Your task to perform on an android device: install app "Contacts" Image 0: 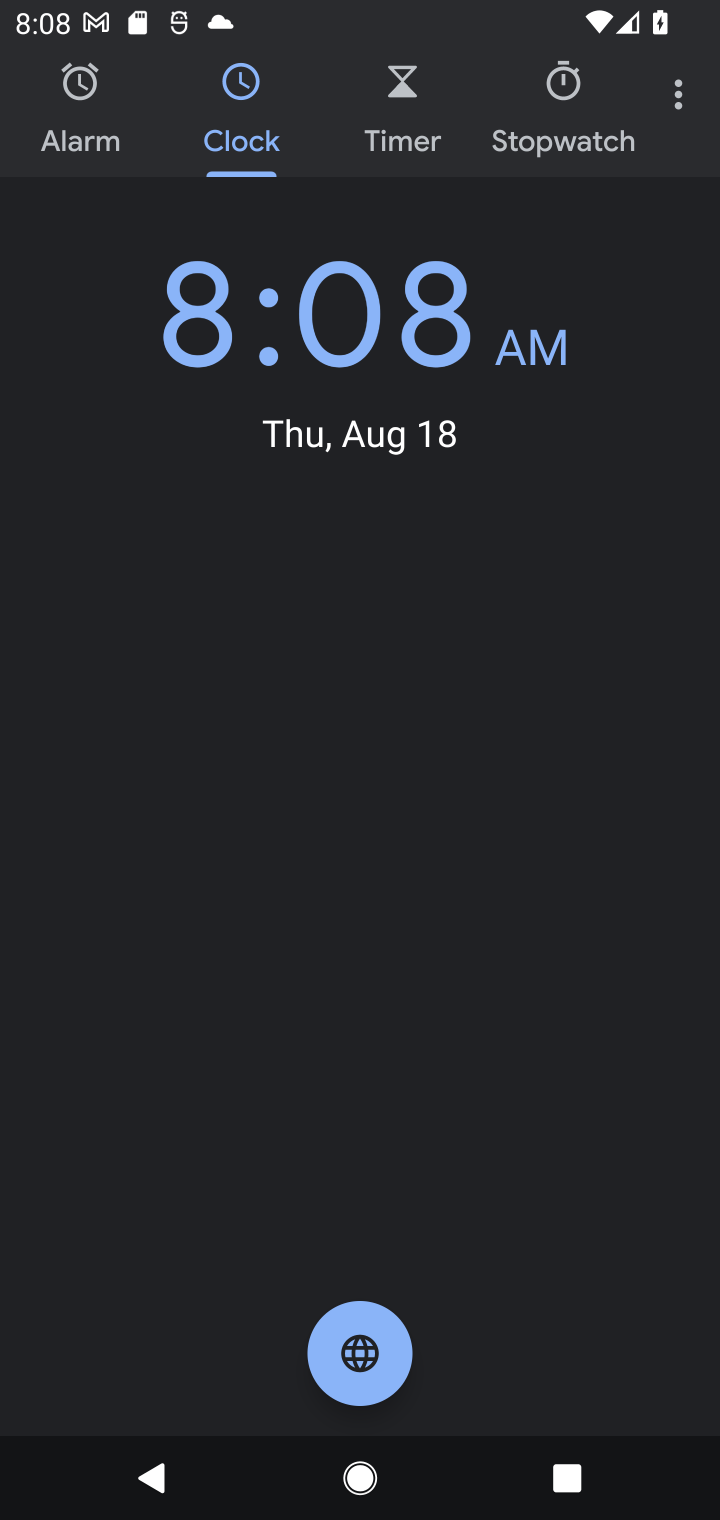
Step 0: press back button
Your task to perform on an android device: install app "Contacts" Image 1: 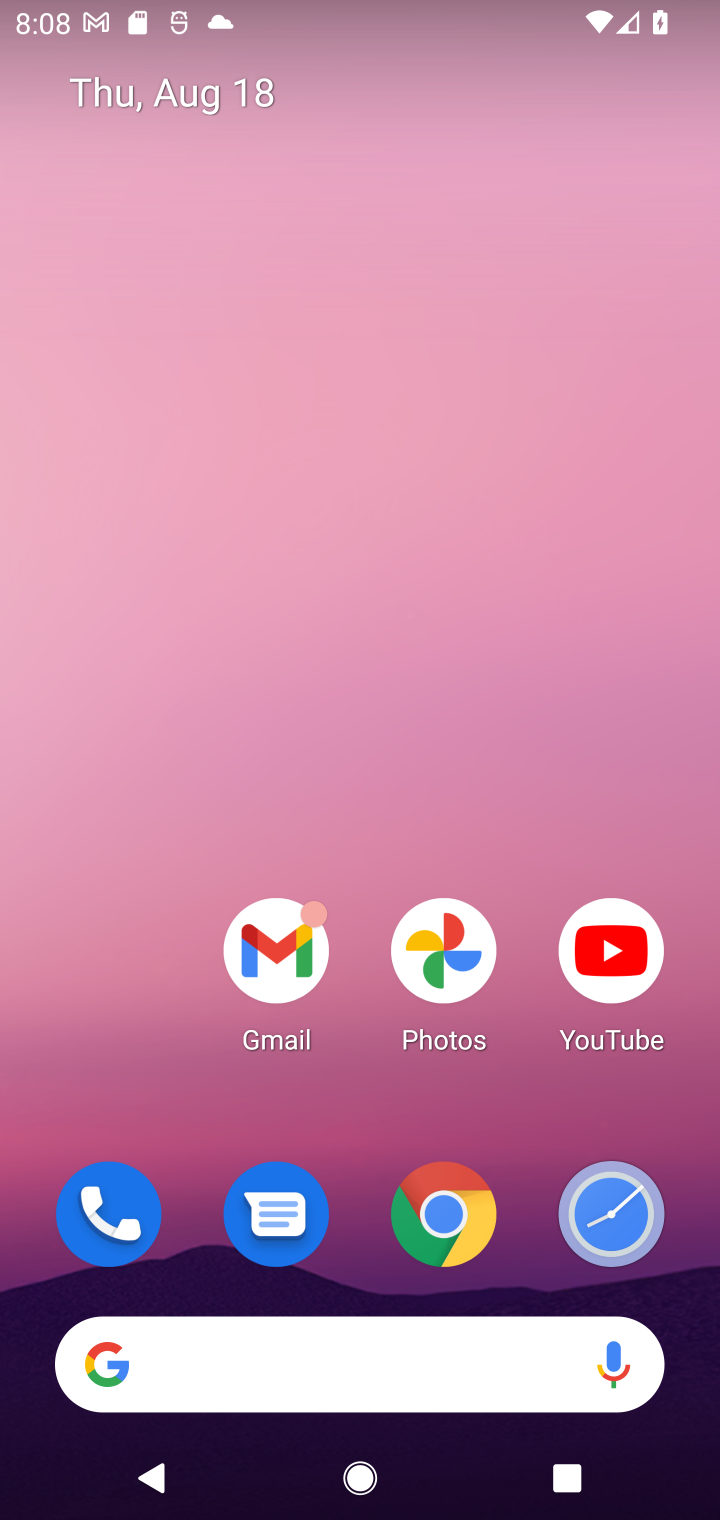
Step 1: drag from (101, 1053) to (406, 1)
Your task to perform on an android device: install app "Contacts" Image 2: 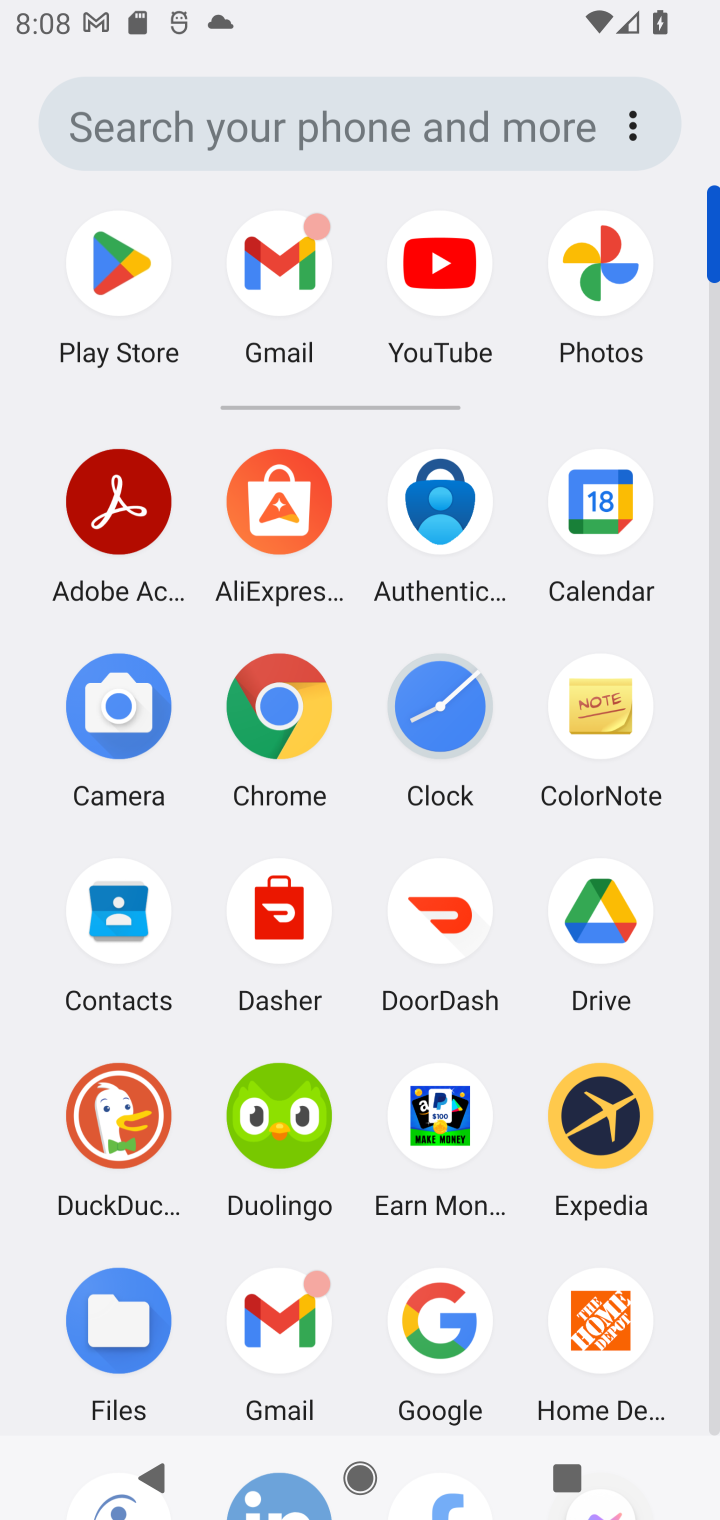
Step 2: click (121, 936)
Your task to perform on an android device: install app "Contacts" Image 3: 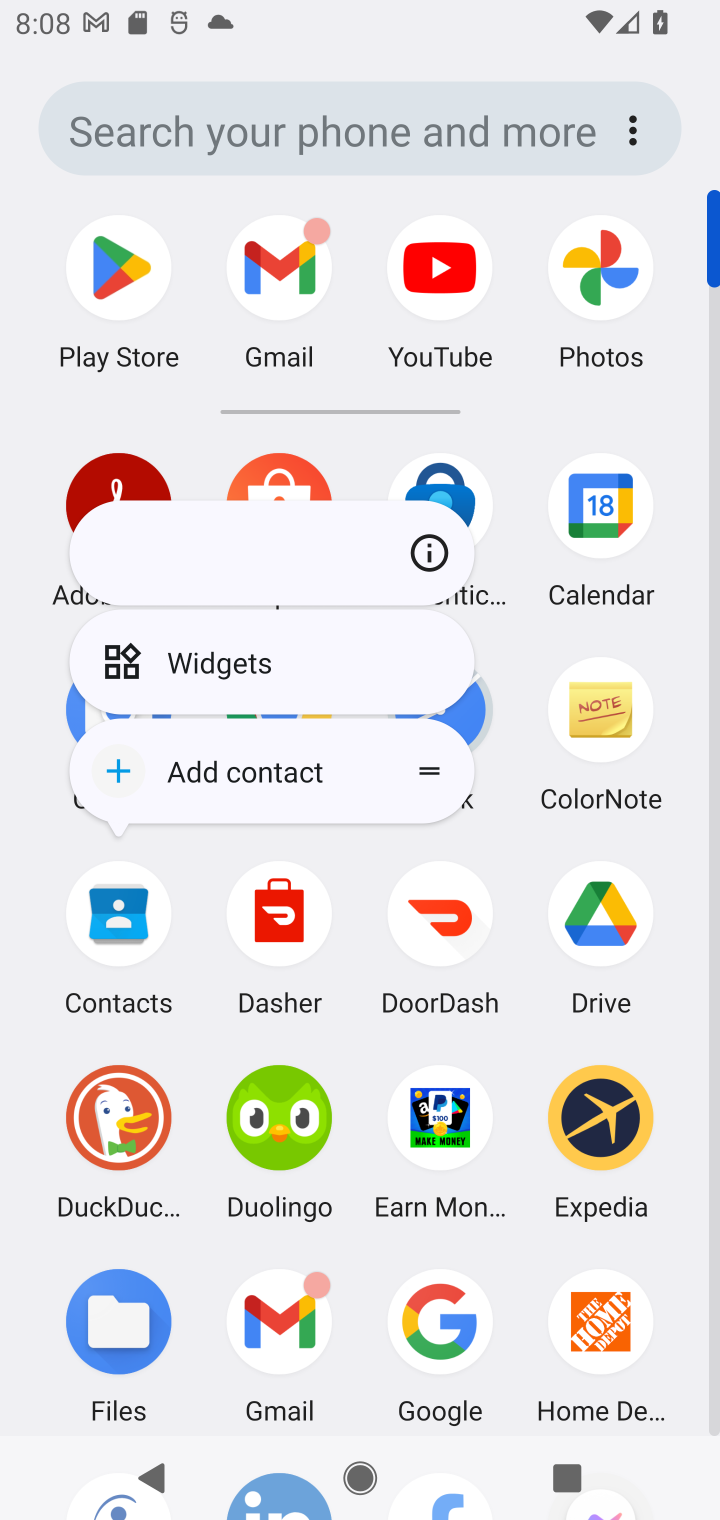
Step 3: click (127, 920)
Your task to perform on an android device: install app "Contacts" Image 4: 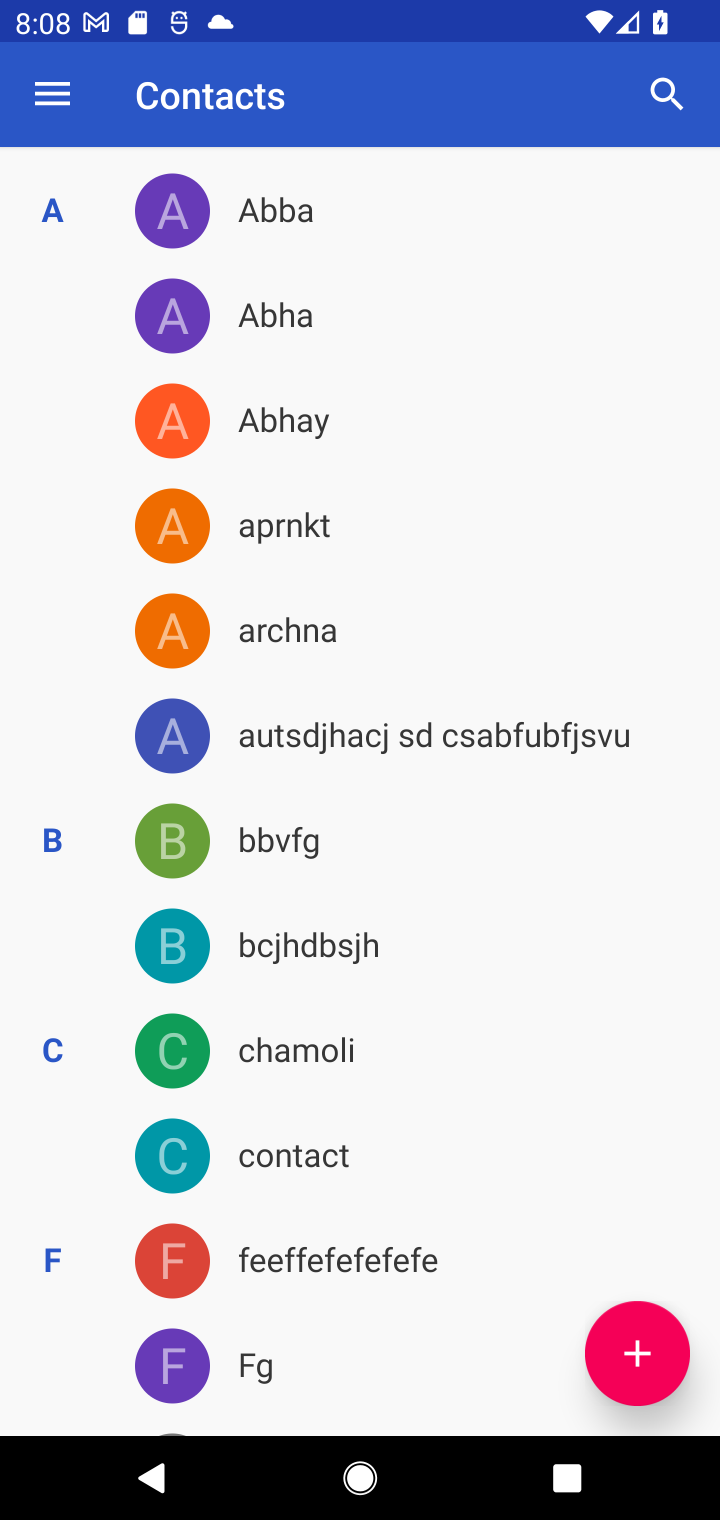
Step 4: task complete